Your task to perform on an android device: make emails show in primary in the gmail app Image 0: 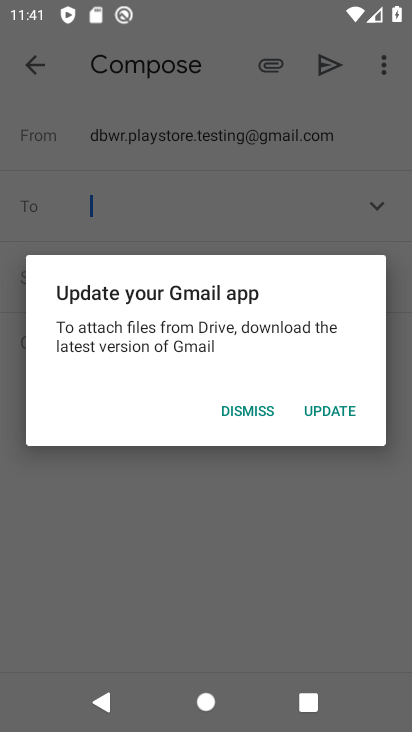
Step 0: press home button
Your task to perform on an android device: make emails show in primary in the gmail app Image 1: 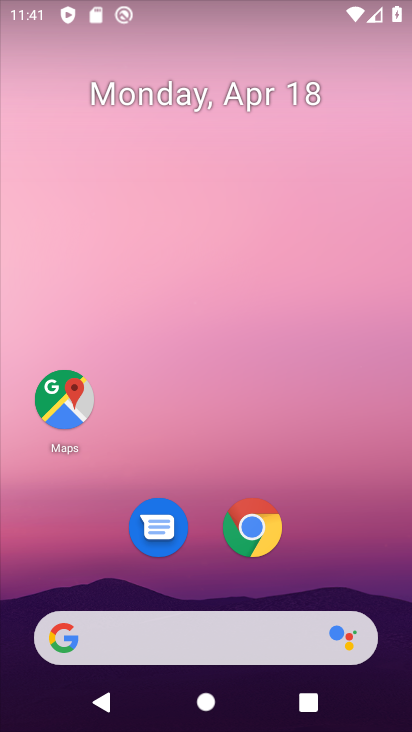
Step 1: drag from (358, 576) to (356, 136)
Your task to perform on an android device: make emails show in primary in the gmail app Image 2: 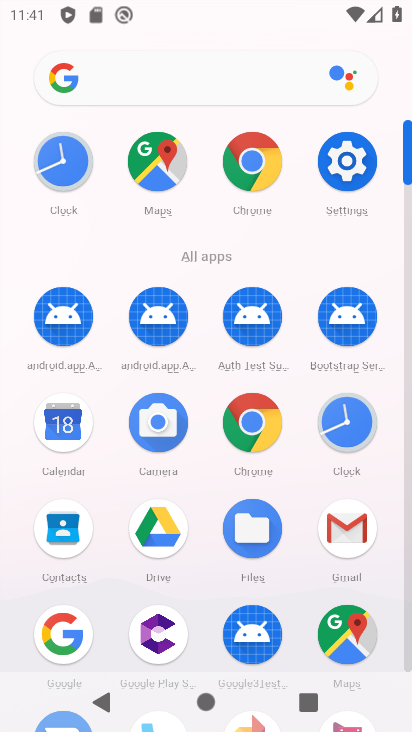
Step 2: click (345, 512)
Your task to perform on an android device: make emails show in primary in the gmail app Image 3: 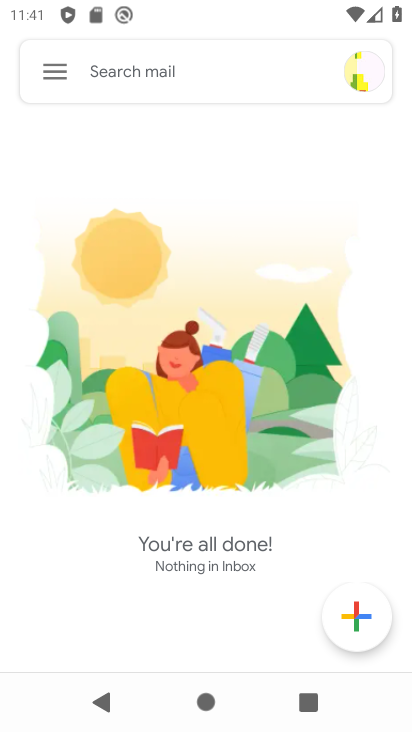
Step 3: click (66, 72)
Your task to perform on an android device: make emails show in primary in the gmail app Image 4: 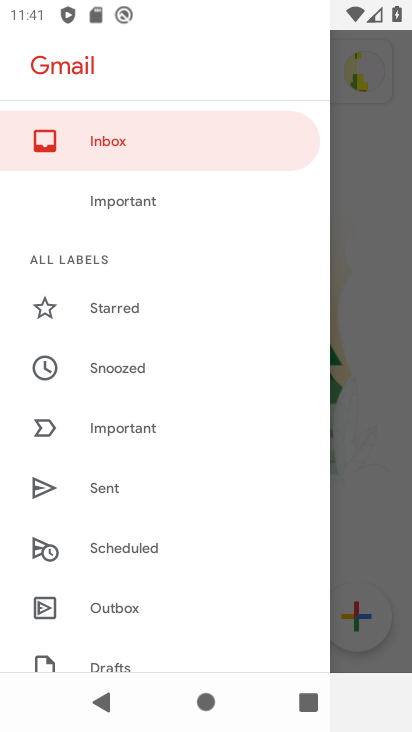
Step 4: drag from (131, 544) to (161, 398)
Your task to perform on an android device: make emails show in primary in the gmail app Image 5: 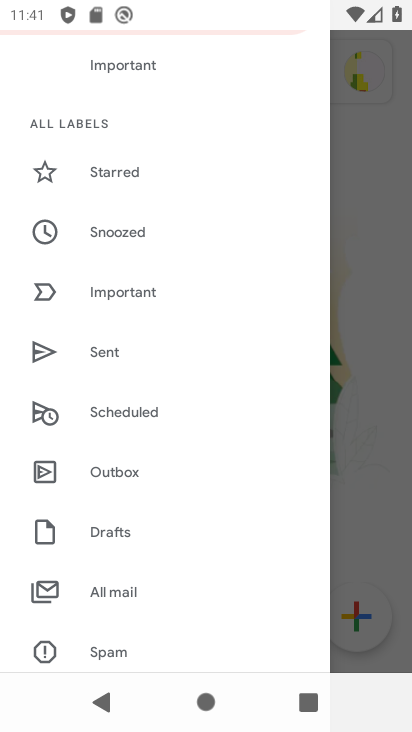
Step 5: drag from (141, 583) to (171, 424)
Your task to perform on an android device: make emails show in primary in the gmail app Image 6: 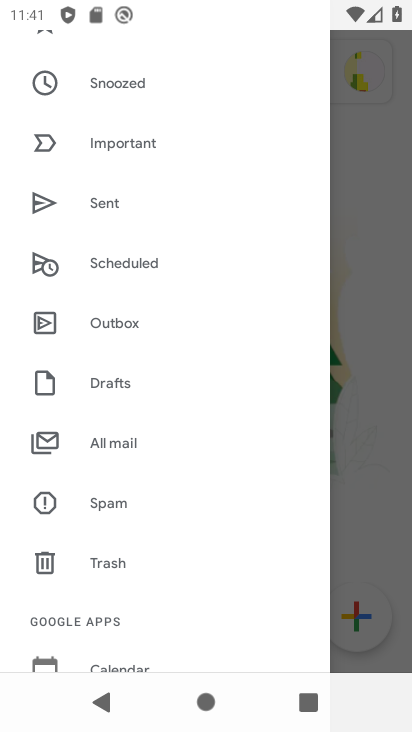
Step 6: drag from (180, 602) to (218, 433)
Your task to perform on an android device: make emails show in primary in the gmail app Image 7: 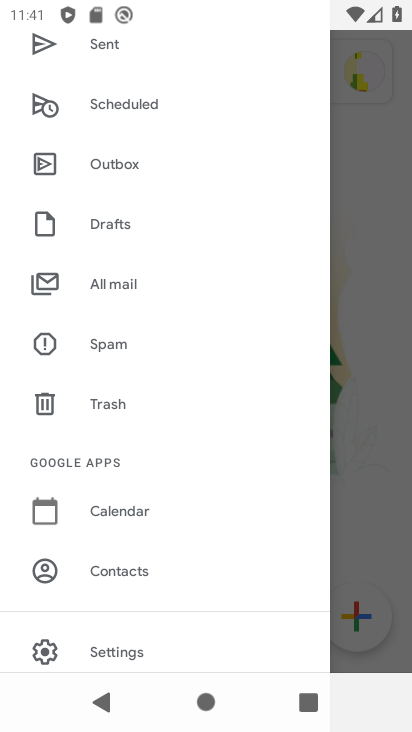
Step 7: click (165, 635)
Your task to perform on an android device: make emails show in primary in the gmail app Image 8: 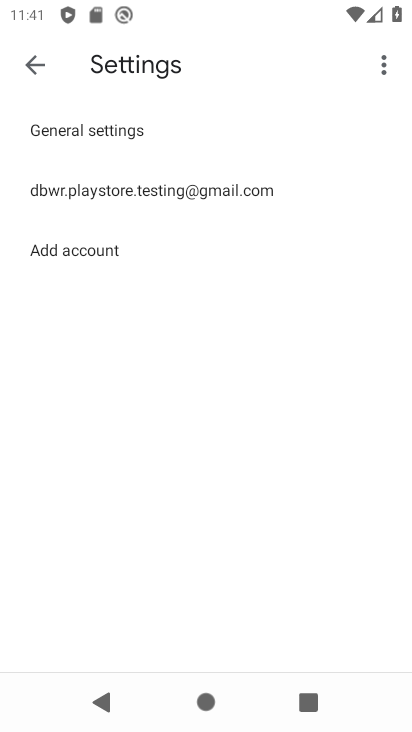
Step 8: click (231, 192)
Your task to perform on an android device: make emails show in primary in the gmail app Image 9: 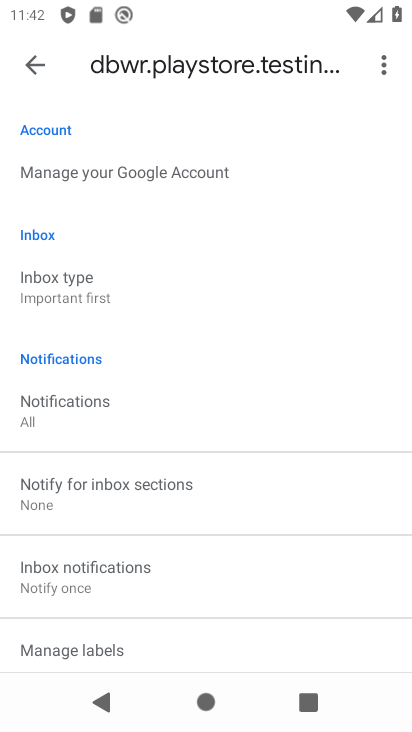
Step 9: click (66, 280)
Your task to perform on an android device: make emails show in primary in the gmail app Image 10: 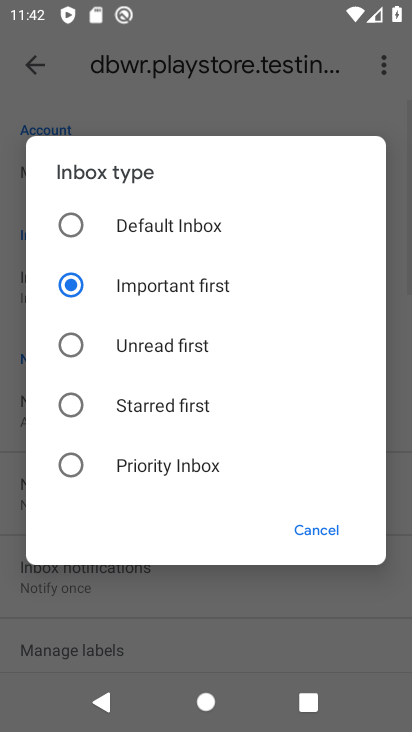
Step 10: click (108, 223)
Your task to perform on an android device: make emails show in primary in the gmail app Image 11: 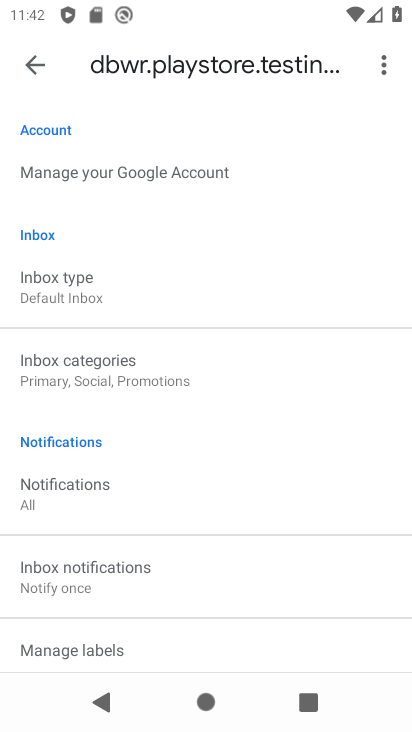
Step 11: task complete